Your task to perform on an android device: Search for the new steph curry shoes on Amazon. Image 0: 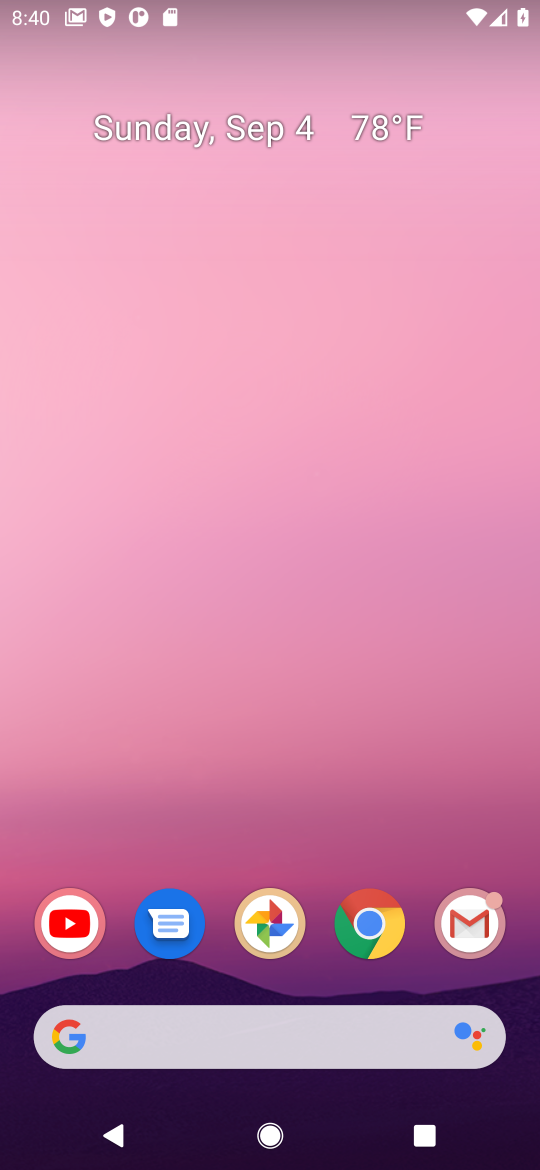
Step 0: click (351, 911)
Your task to perform on an android device: Search for the new steph curry shoes on Amazon. Image 1: 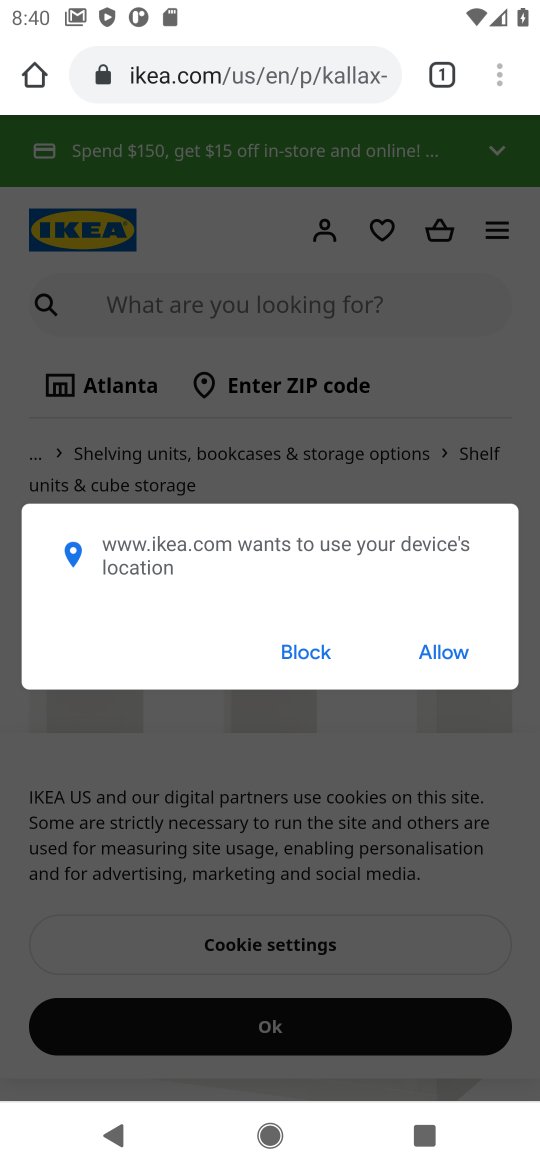
Step 1: click (138, 81)
Your task to perform on an android device: Search for the new steph curry shoes on Amazon. Image 2: 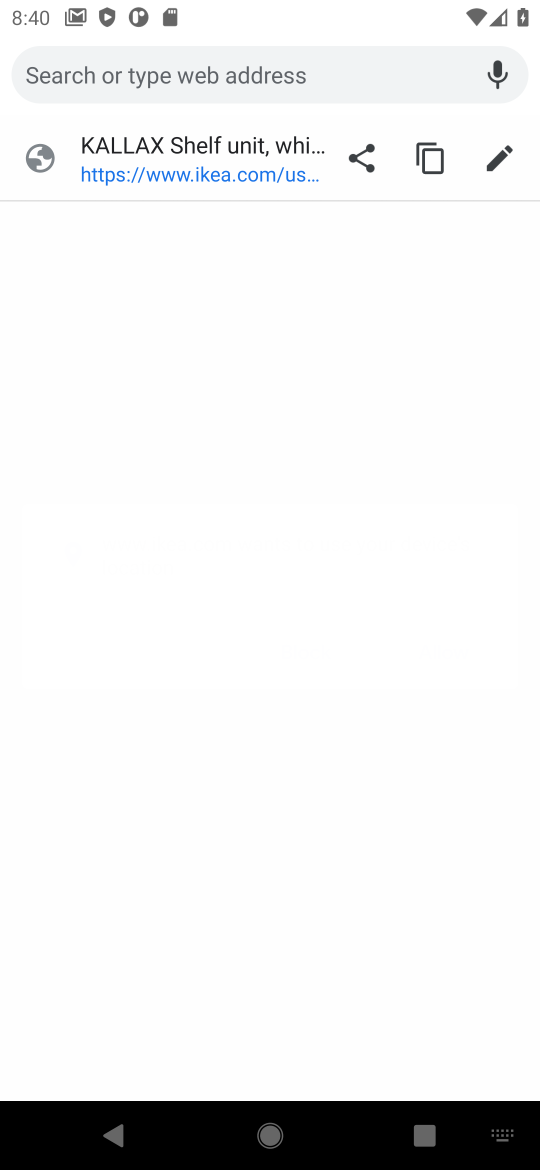
Step 2: type "small bookcase on Ikea.com"
Your task to perform on an android device: Search for the new steph curry shoes on Amazon. Image 3: 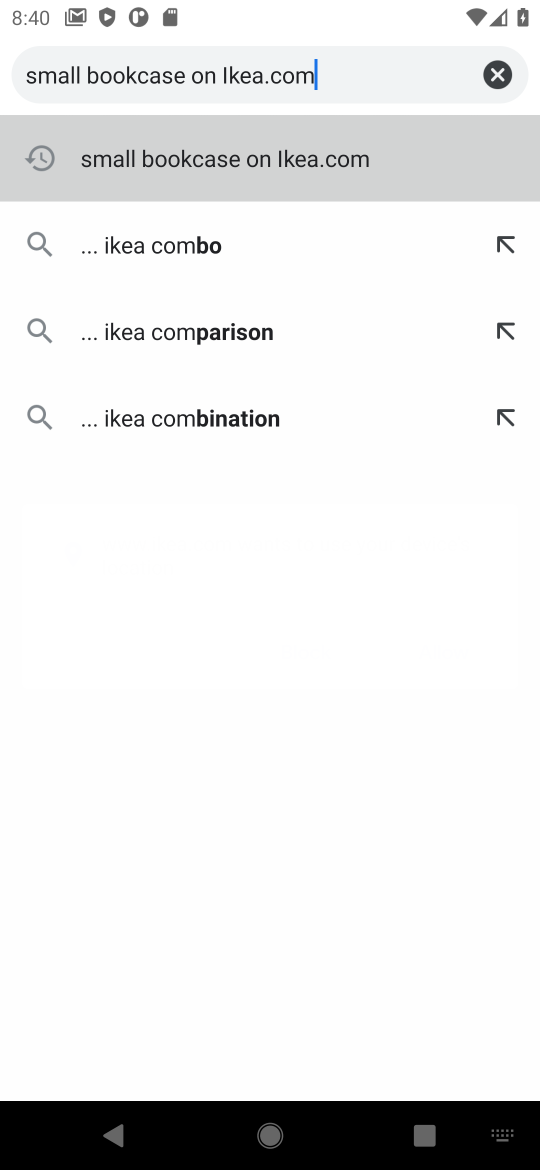
Step 3: click (267, 180)
Your task to perform on an android device: Search for the new steph curry shoes on Amazon. Image 4: 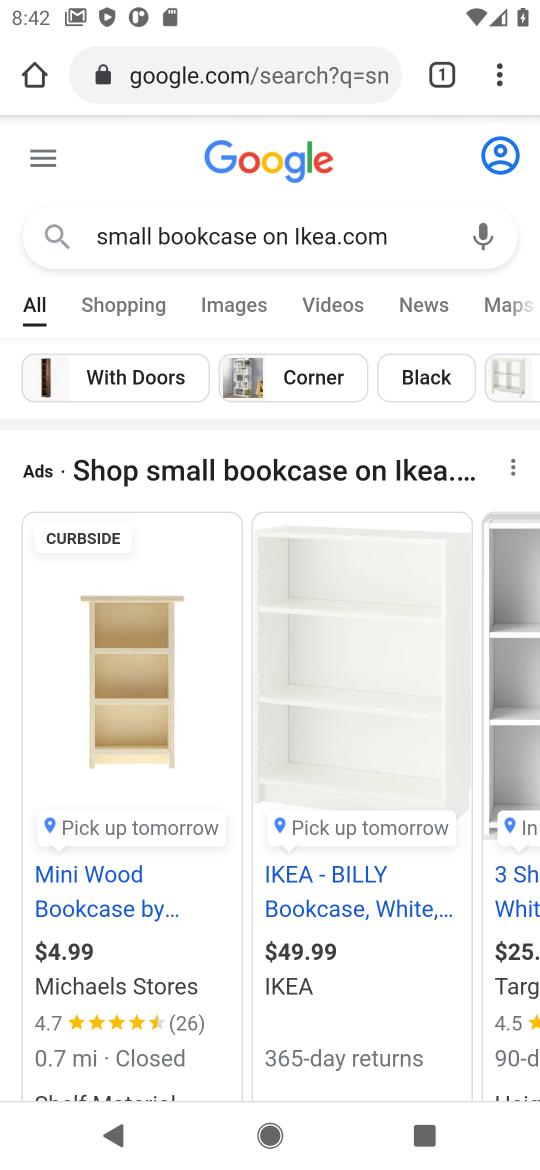
Step 4: task complete